Your task to perform on an android device: Open Youtube and go to the subscriptions tab Image 0: 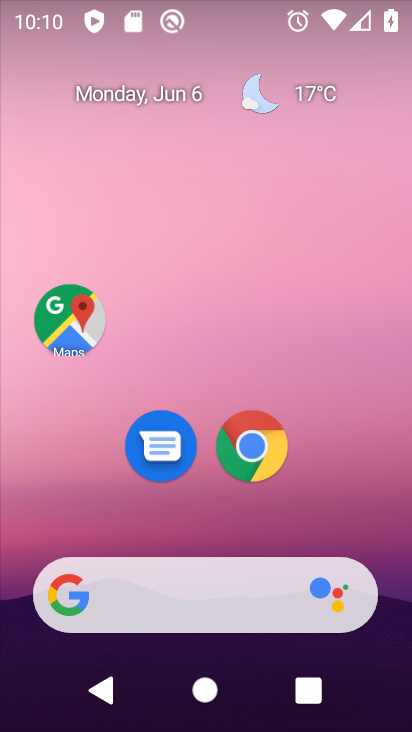
Step 0: drag from (178, 532) to (223, 116)
Your task to perform on an android device: Open Youtube and go to the subscriptions tab Image 1: 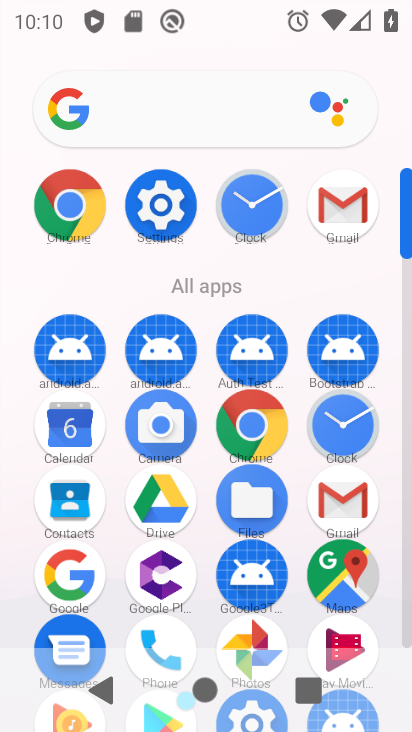
Step 1: drag from (204, 650) to (229, 370)
Your task to perform on an android device: Open Youtube and go to the subscriptions tab Image 2: 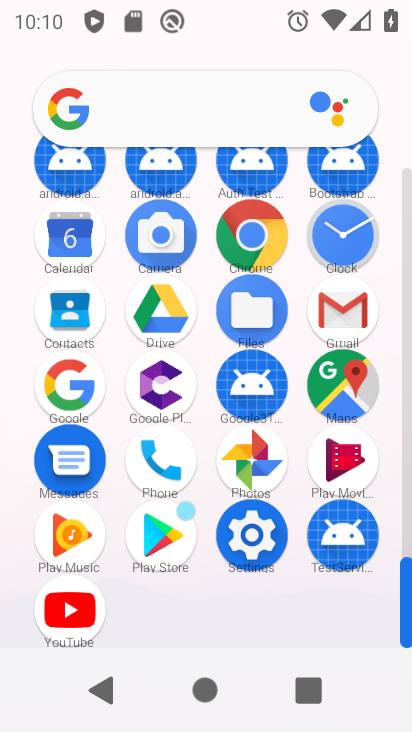
Step 2: click (71, 601)
Your task to perform on an android device: Open Youtube and go to the subscriptions tab Image 3: 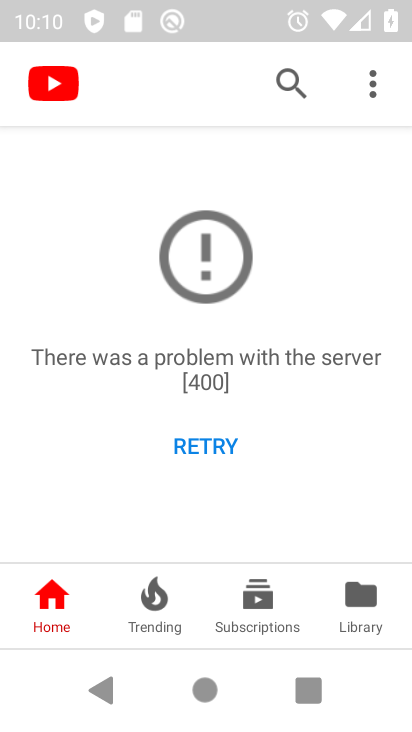
Step 3: click (252, 599)
Your task to perform on an android device: Open Youtube and go to the subscriptions tab Image 4: 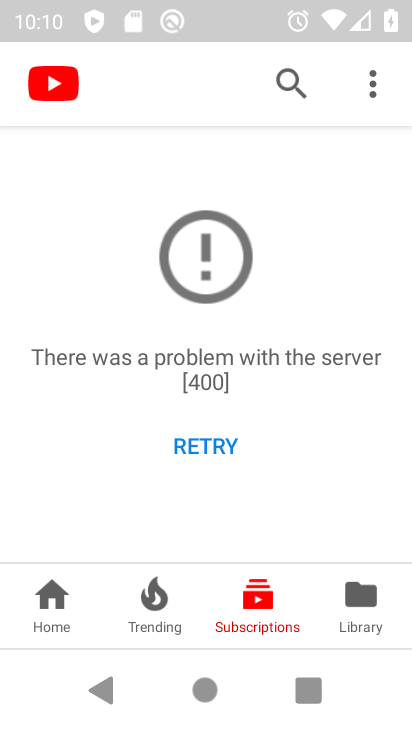
Step 4: task complete